Your task to perform on an android device: Search for Italian restaurants on Maps Image 0: 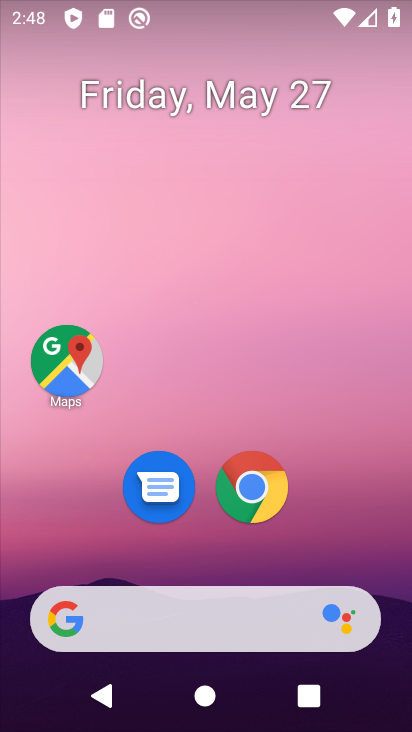
Step 0: click (59, 367)
Your task to perform on an android device: Search for Italian restaurants on Maps Image 1: 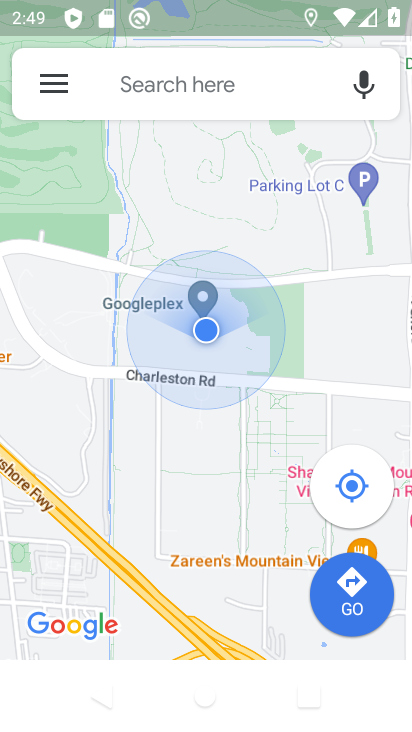
Step 1: click (222, 91)
Your task to perform on an android device: Search for Italian restaurants on Maps Image 2: 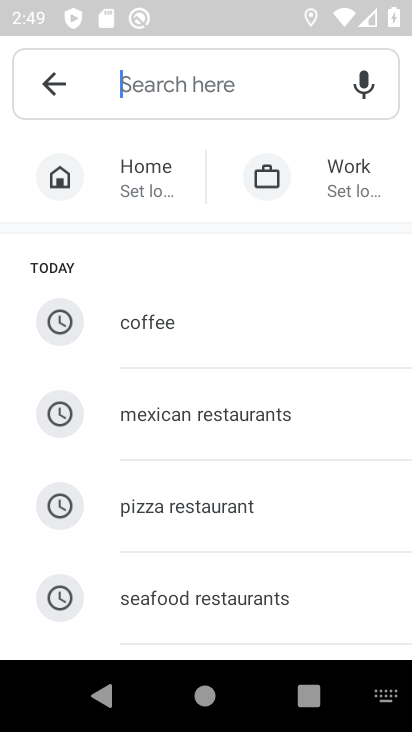
Step 2: type "italian restaurants"
Your task to perform on an android device: Search for Italian restaurants on Maps Image 3: 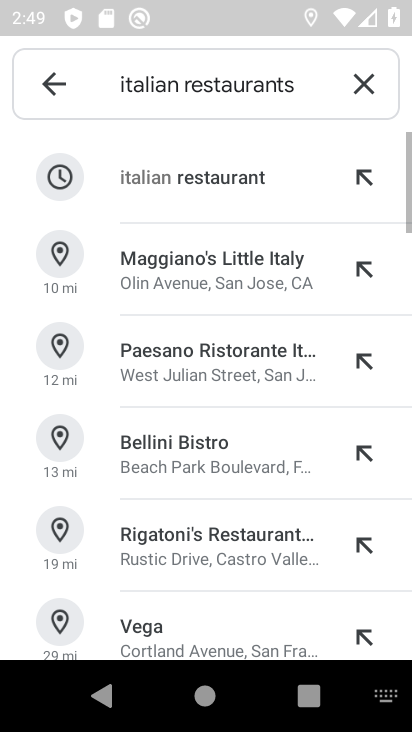
Step 3: click (223, 191)
Your task to perform on an android device: Search for Italian restaurants on Maps Image 4: 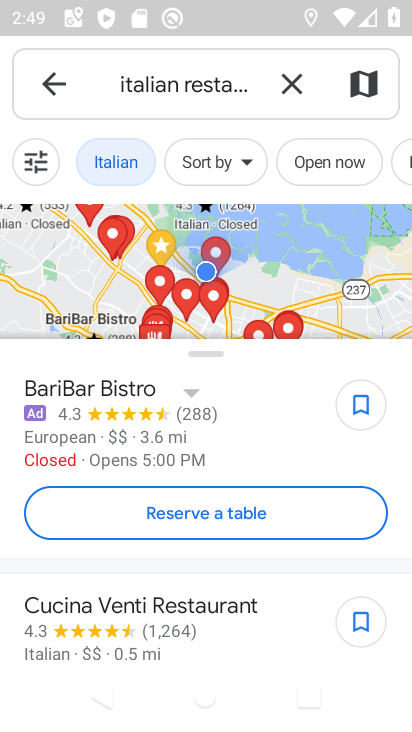
Step 4: task complete